Your task to perform on an android device: Go to display settings Image 0: 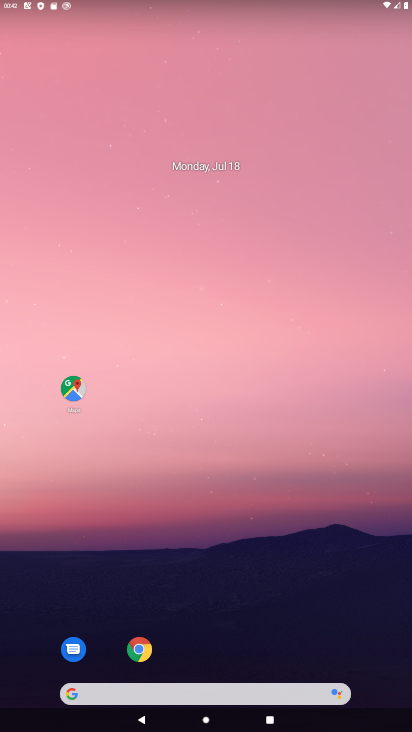
Step 0: press home button
Your task to perform on an android device: Go to display settings Image 1: 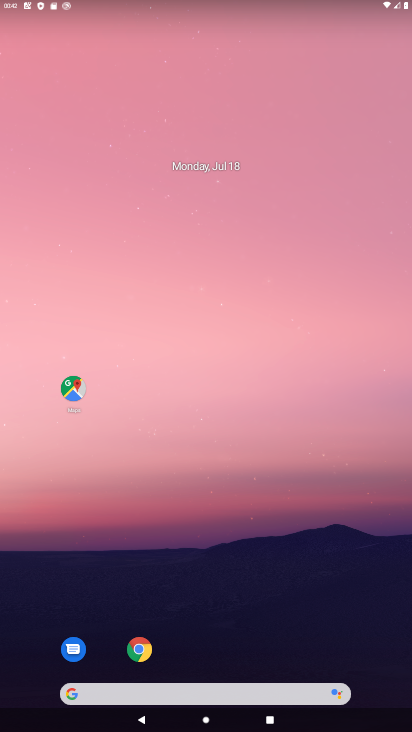
Step 1: drag from (201, 623) to (254, 17)
Your task to perform on an android device: Go to display settings Image 2: 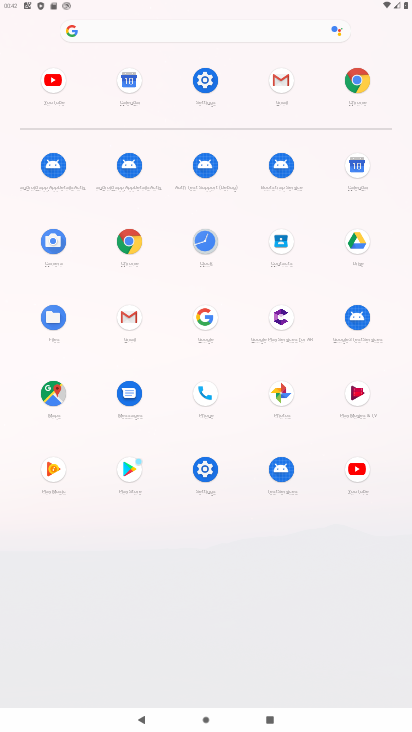
Step 2: click (207, 165)
Your task to perform on an android device: Go to display settings Image 3: 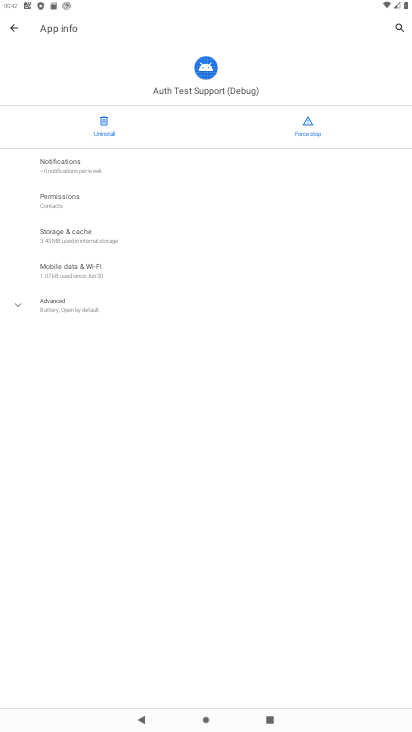
Step 3: press back button
Your task to perform on an android device: Go to display settings Image 4: 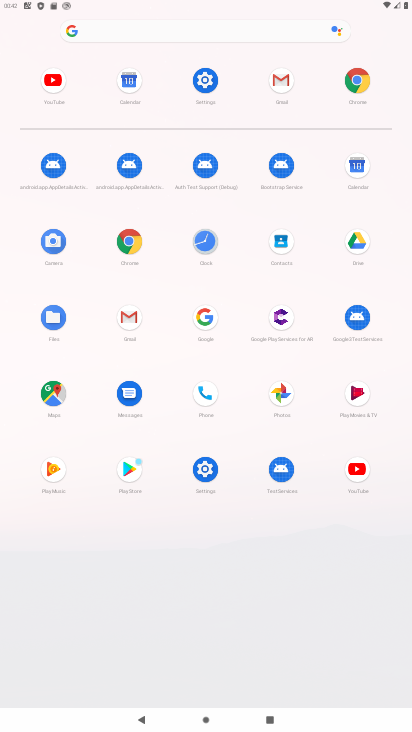
Step 4: click (200, 74)
Your task to perform on an android device: Go to display settings Image 5: 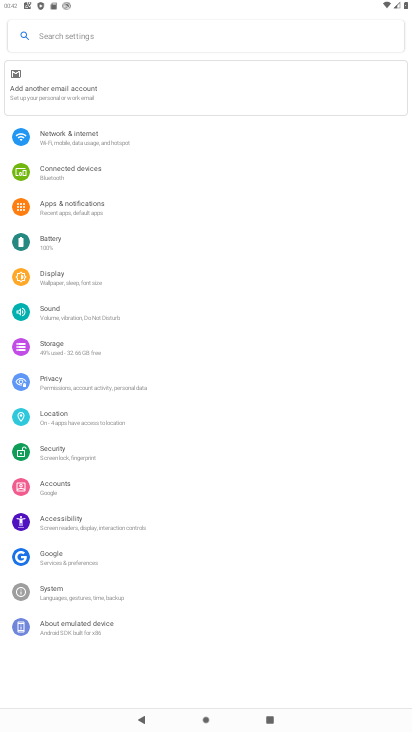
Step 5: click (54, 278)
Your task to perform on an android device: Go to display settings Image 6: 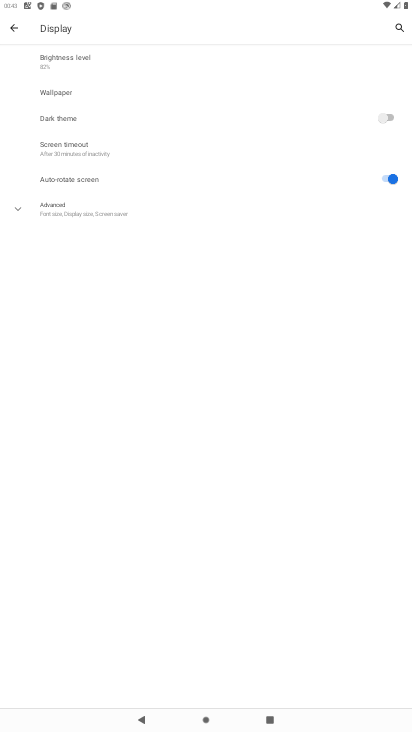
Step 6: task complete